Your task to perform on an android device: stop showing notifications on the lock screen Image 0: 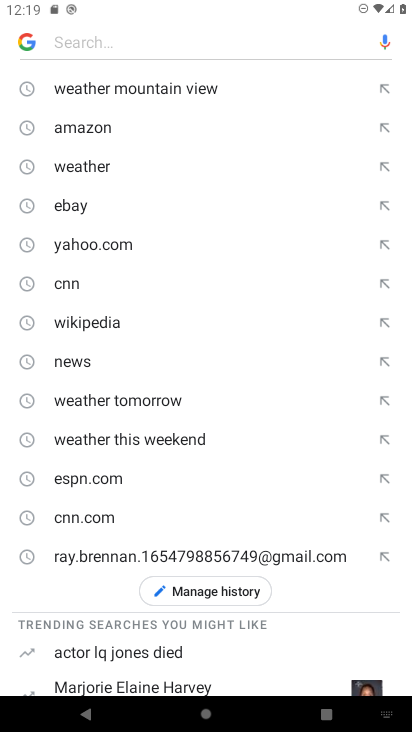
Step 0: press back button
Your task to perform on an android device: stop showing notifications on the lock screen Image 1: 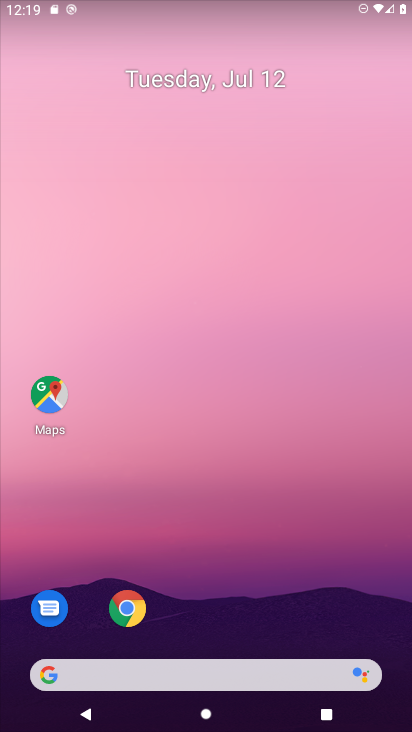
Step 1: drag from (237, 642) to (204, 82)
Your task to perform on an android device: stop showing notifications on the lock screen Image 2: 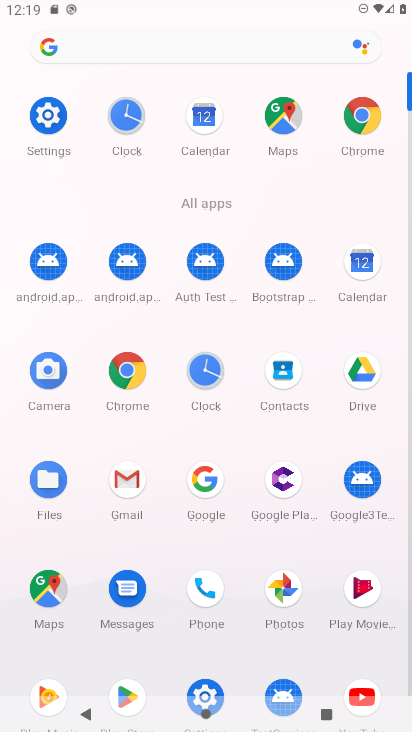
Step 2: click (38, 120)
Your task to perform on an android device: stop showing notifications on the lock screen Image 3: 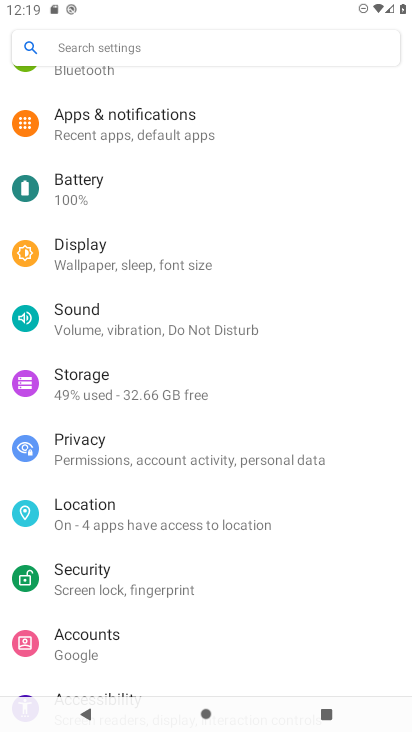
Step 3: drag from (98, 509) to (118, 301)
Your task to perform on an android device: stop showing notifications on the lock screen Image 4: 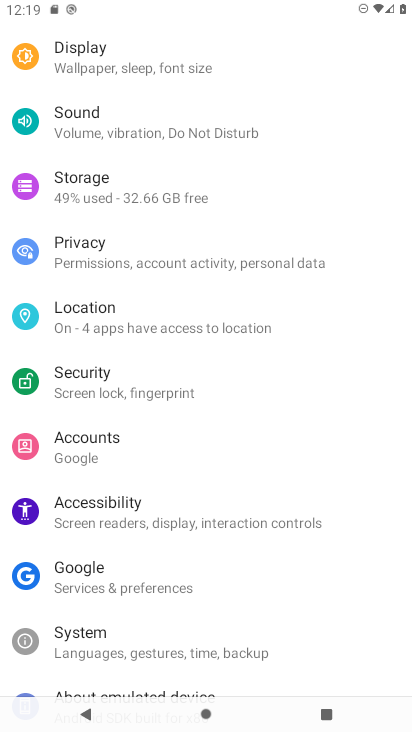
Step 4: drag from (118, 301) to (107, 497)
Your task to perform on an android device: stop showing notifications on the lock screen Image 5: 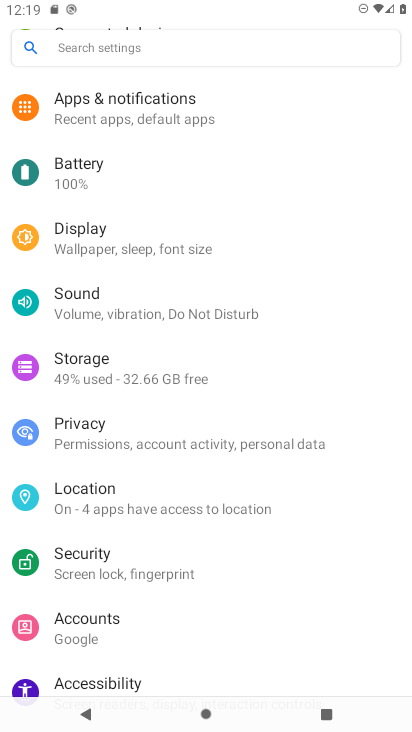
Step 5: click (106, 120)
Your task to perform on an android device: stop showing notifications on the lock screen Image 6: 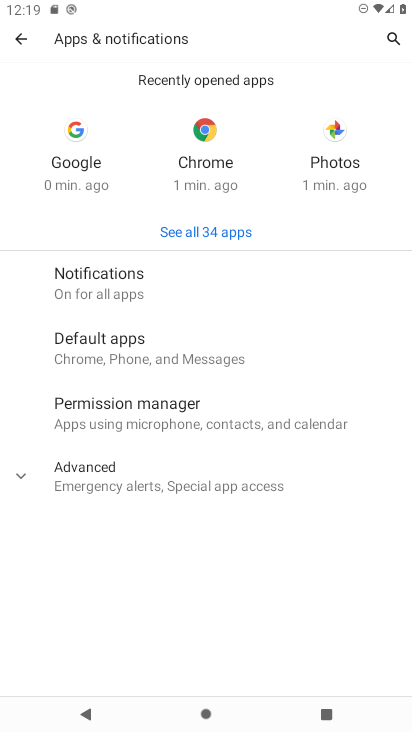
Step 6: click (147, 285)
Your task to perform on an android device: stop showing notifications on the lock screen Image 7: 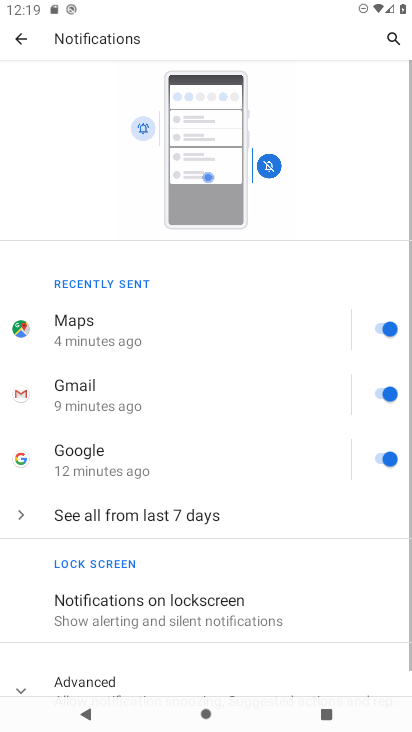
Step 7: click (202, 594)
Your task to perform on an android device: stop showing notifications on the lock screen Image 8: 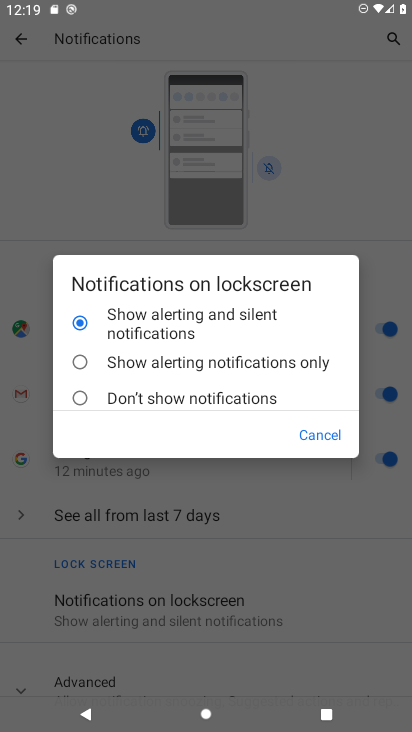
Step 8: click (155, 393)
Your task to perform on an android device: stop showing notifications on the lock screen Image 9: 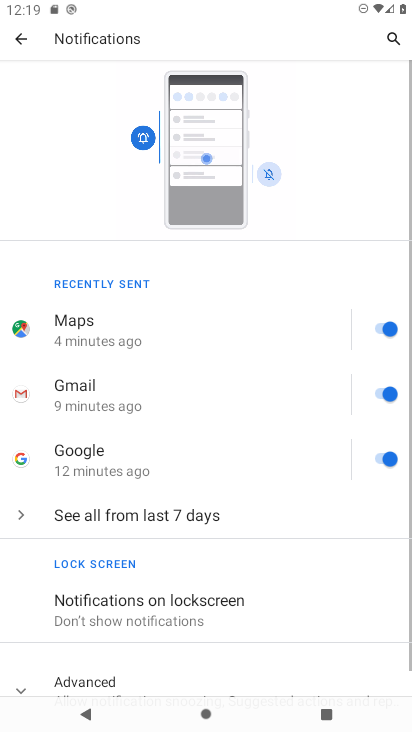
Step 9: task complete